Your task to perform on an android device: make emails show in primary in the gmail app Image 0: 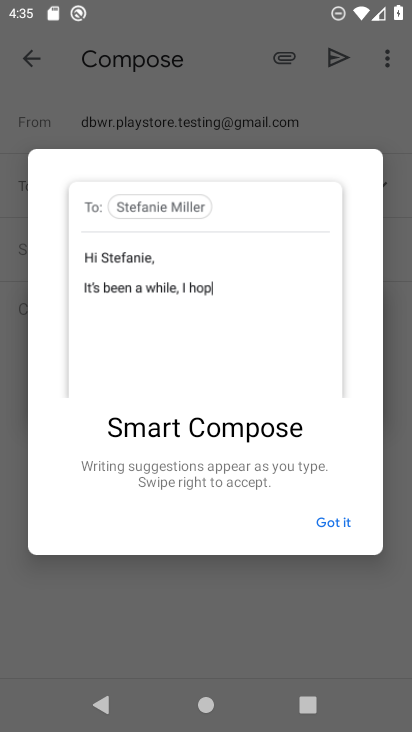
Step 0: press home button
Your task to perform on an android device: make emails show in primary in the gmail app Image 1: 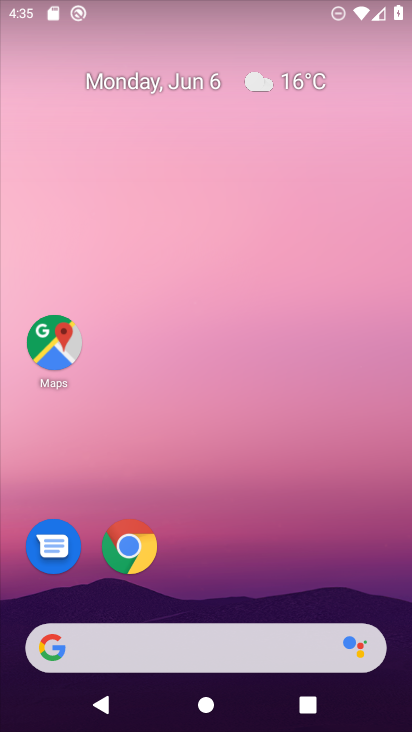
Step 1: drag from (201, 610) to (209, 4)
Your task to perform on an android device: make emails show in primary in the gmail app Image 2: 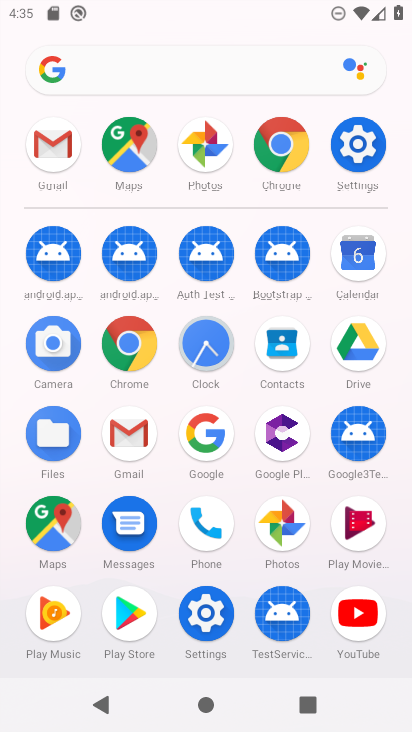
Step 2: click (112, 443)
Your task to perform on an android device: make emails show in primary in the gmail app Image 3: 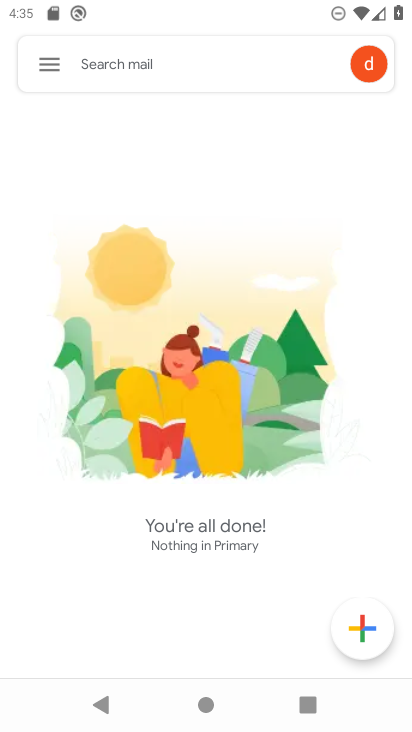
Step 3: task complete